Your task to perform on an android device: Open internet settings Image 0: 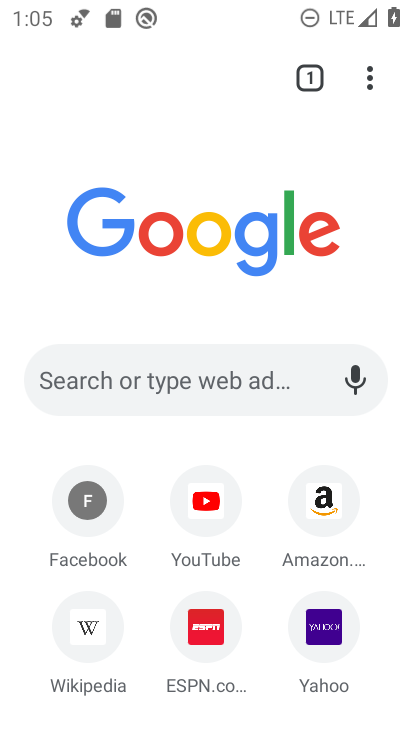
Step 0: press home button
Your task to perform on an android device: Open internet settings Image 1: 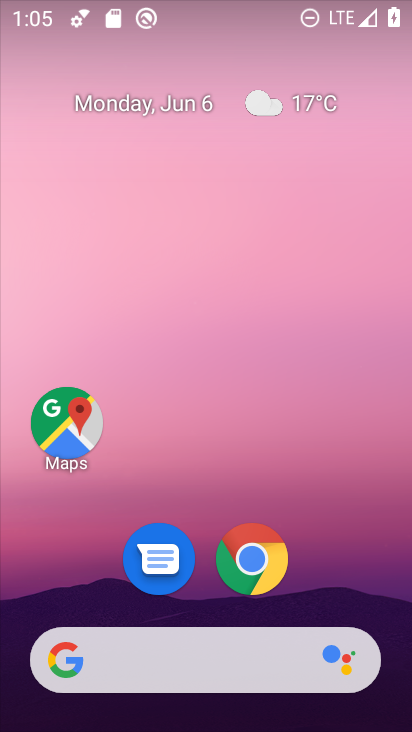
Step 1: drag from (213, 646) to (228, 87)
Your task to perform on an android device: Open internet settings Image 2: 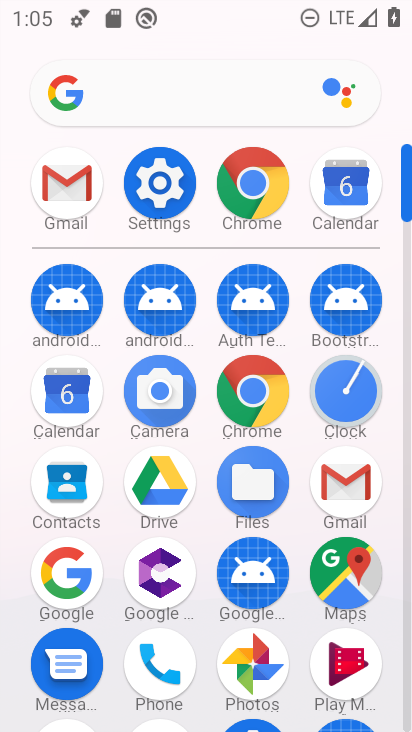
Step 2: click (168, 197)
Your task to perform on an android device: Open internet settings Image 3: 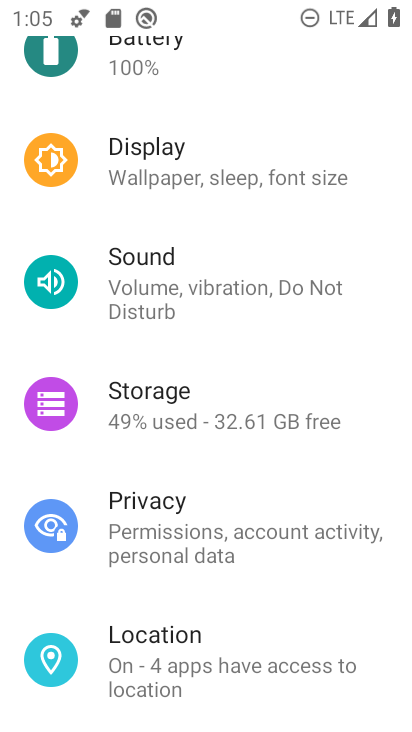
Step 3: drag from (185, 289) to (203, 560)
Your task to perform on an android device: Open internet settings Image 4: 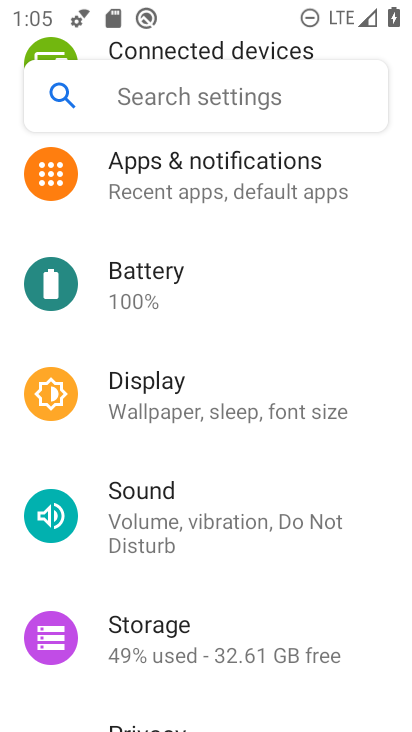
Step 4: drag from (197, 300) to (193, 596)
Your task to perform on an android device: Open internet settings Image 5: 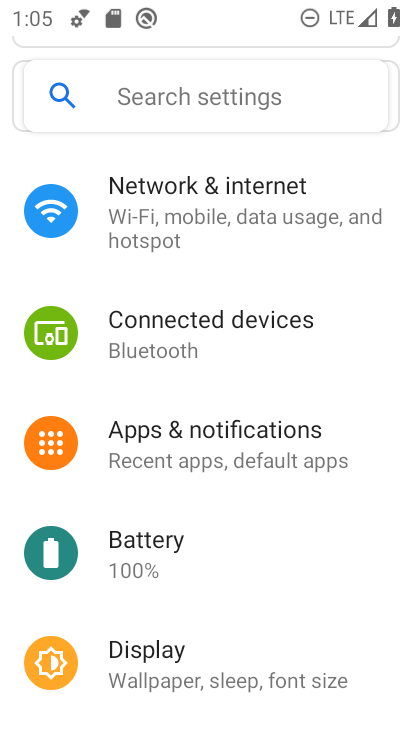
Step 5: drag from (177, 372) to (187, 641)
Your task to perform on an android device: Open internet settings Image 6: 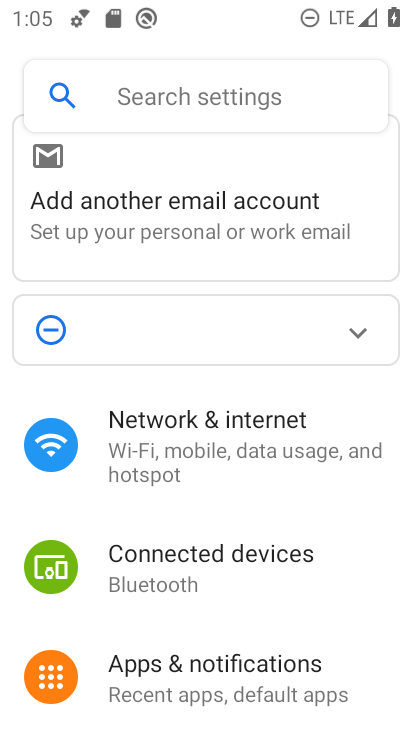
Step 6: click (259, 460)
Your task to perform on an android device: Open internet settings Image 7: 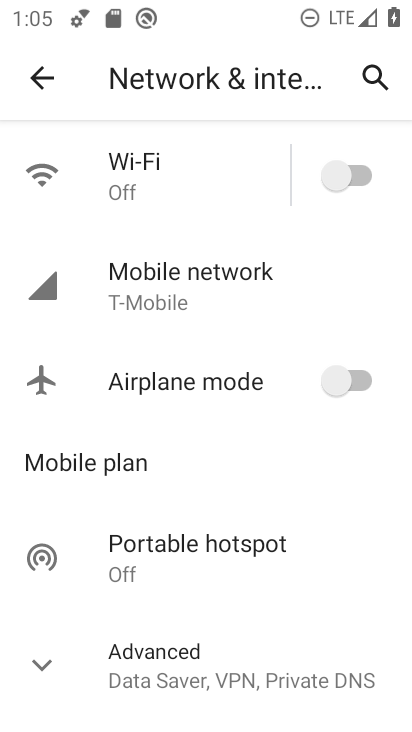
Step 7: click (188, 303)
Your task to perform on an android device: Open internet settings Image 8: 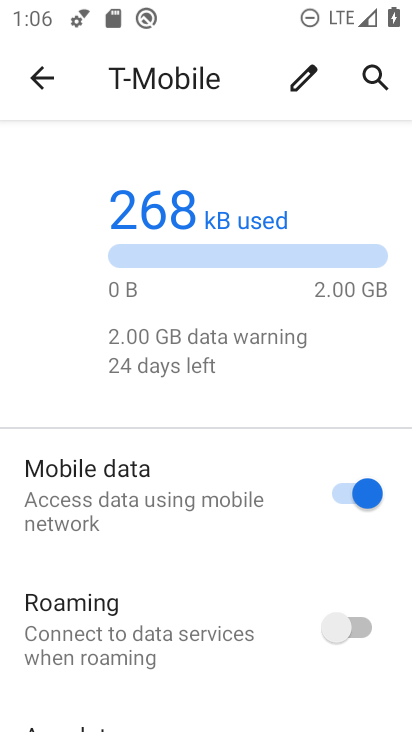
Step 8: task complete